Your task to perform on an android device: turn off priority inbox in the gmail app Image 0: 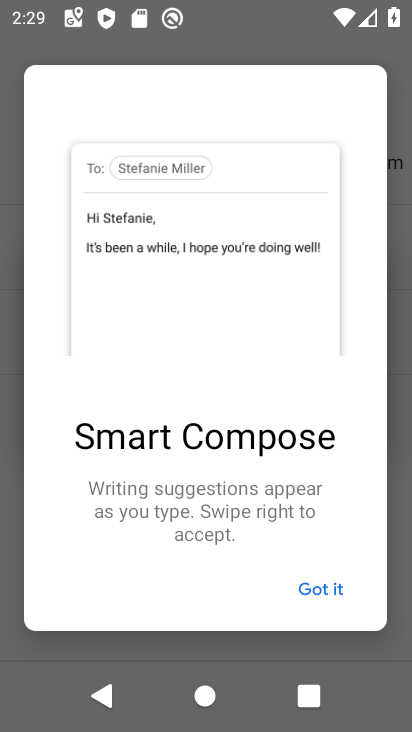
Step 0: press home button
Your task to perform on an android device: turn off priority inbox in the gmail app Image 1: 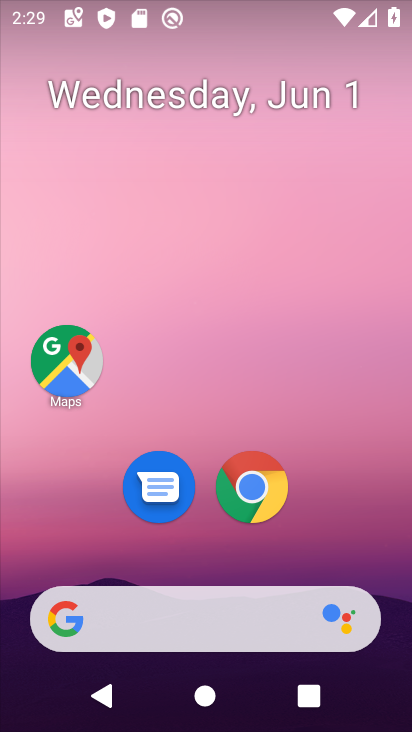
Step 1: drag from (381, 508) to (367, 254)
Your task to perform on an android device: turn off priority inbox in the gmail app Image 2: 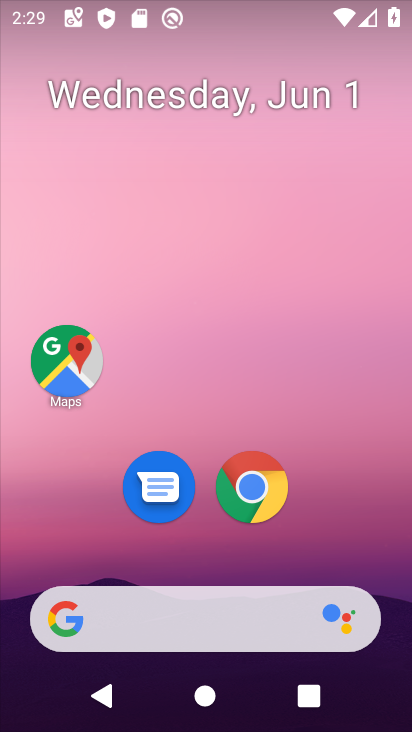
Step 2: drag from (377, 546) to (365, 222)
Your task to perform on an android device: turn off priority inbox in the gmail app Image 3: 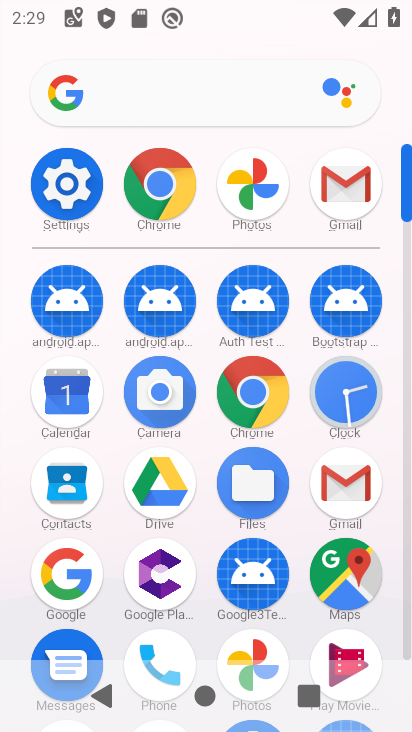
Step 3: click (349, 480)
Your task to perform on an android device: turn off priority inbox in the gmail app Image 4: 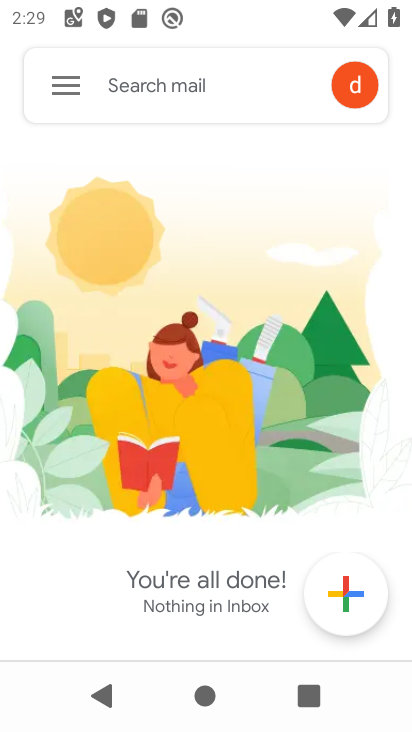
Step 4: click (70, 93)
Your task to perform on an android device: turn off priority inbox in the gmail app Image 5: 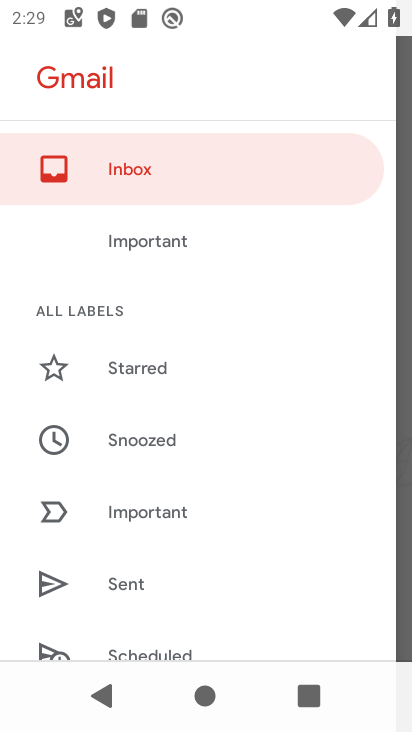
Step 5: drag from (331, 479) to (338, 406)
Your task to perform on an android device: turn off priority inbox in the gmail app Image 6: 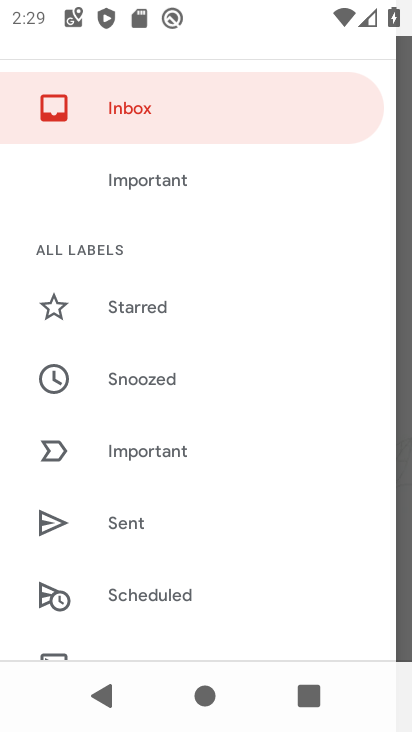
Step 6: drag from (324, 494) to (328, 425)
Your task to perform on an android device: turn off priority inbox in the gmail app Image 7: 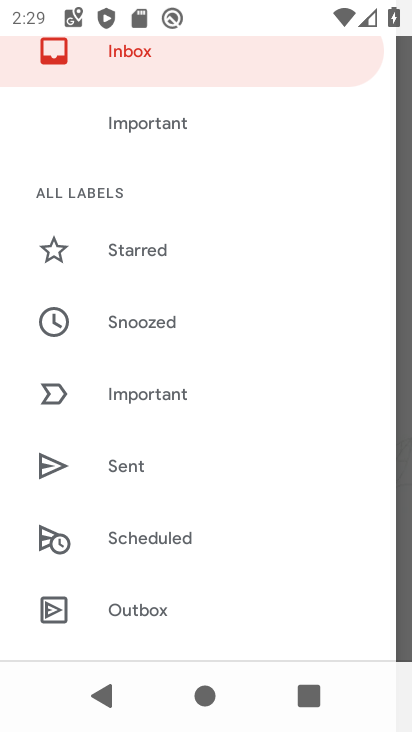
Step 7: drag from (314, 504) to (316, 429)
Your task to perform on an android device: turn off priority inbox in the gmail app Image 8: 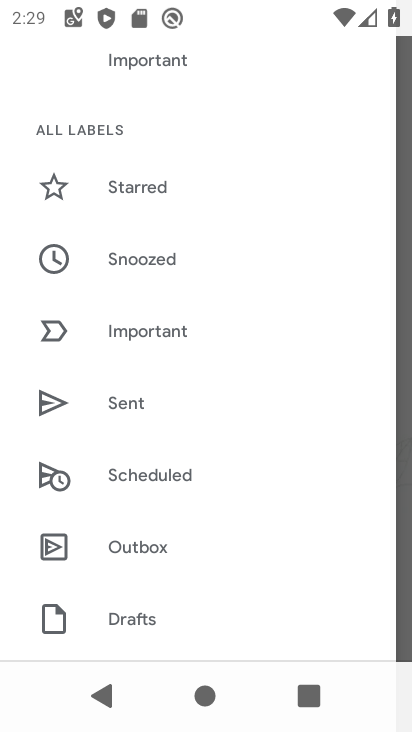
Step 8: drag from (326, 520) to (330, 437)
Your task to perform on an android device: turn off priority inbox in the gmail app Image 9: 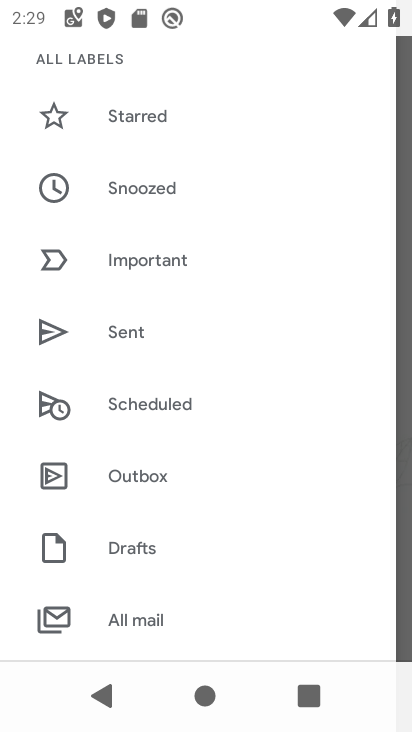
Step 9: drag from (329, 533) to (333, 452)
Your task to perform on an android device: turn off priority inbox in the gmail app Image 10: 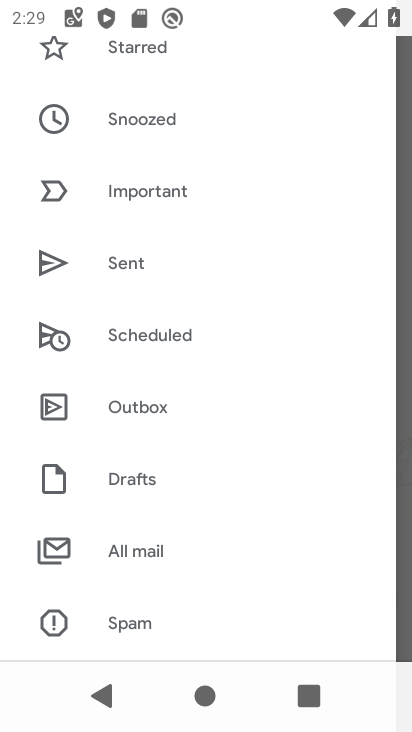
Step 10: drag from (320, 546) to (314, 465)
Your task to perform on an android device: turn off priority inbox in the gmail app Image 11: 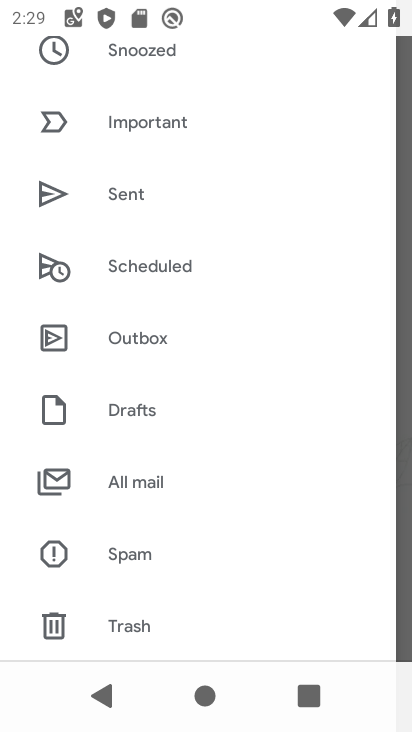
Step 11: drag from (312, 545) to (322, 419)
Your task to perform on an android device: turn off priority inbox in the gmail app Image 12: 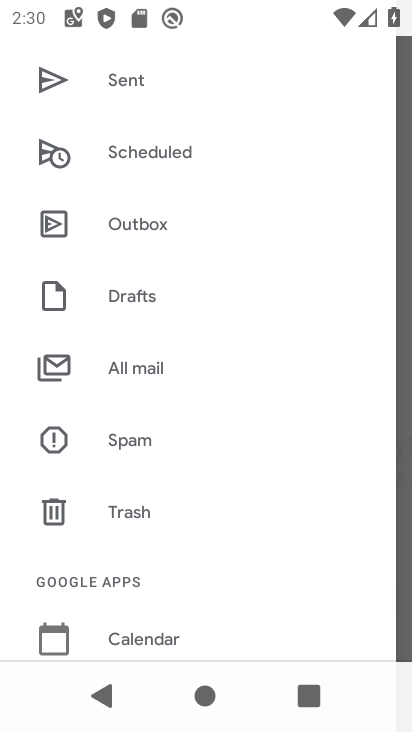
Step 12: drag from (323, 498) to (321, 401)
Your task to perform on an android device: turn off priority inbox in the gmail app Image 13: 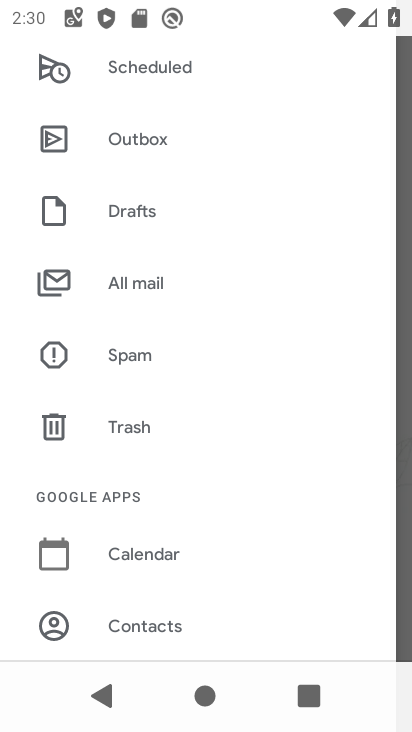
Step 13: drag from (306, 535) to (313, 432)
Your task to perform on an android device: turn off priority inbox in the gmail app Image 14: 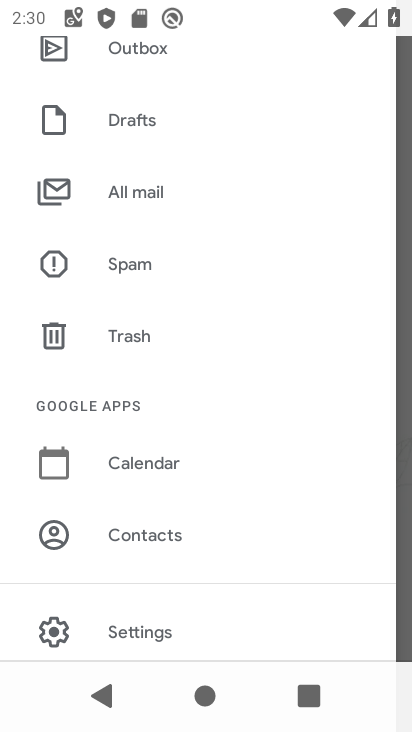
Step 14: drag from (307, 592) to (301, 450)
Your task to perform on an android device: turn off priority inbox in the gmail app Image 15: 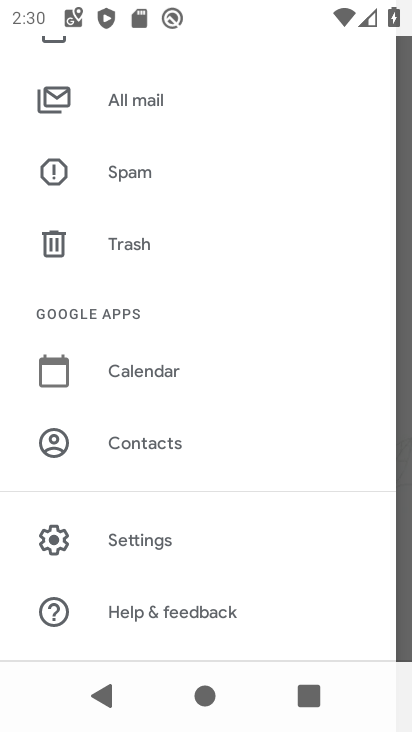
Step 15: click (250, 533)
Your task to perform on an android device: turn off priority inbox in the gmail app Image 16: 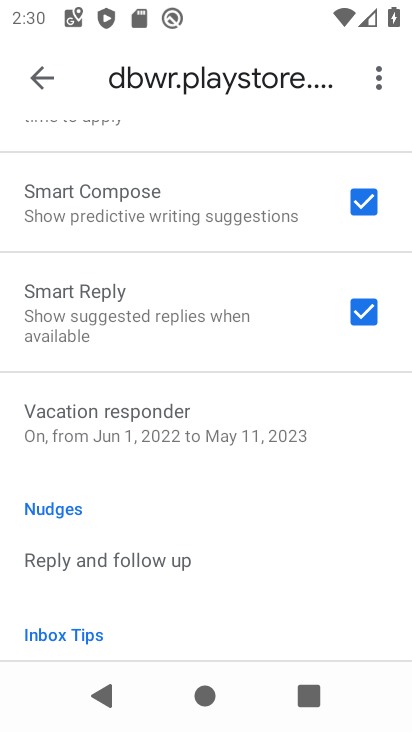
Step 16: drag from (250, 533) to (260, 412)
Your task to perform on an android device: turn off priority inbox in the gmail app Image 17: 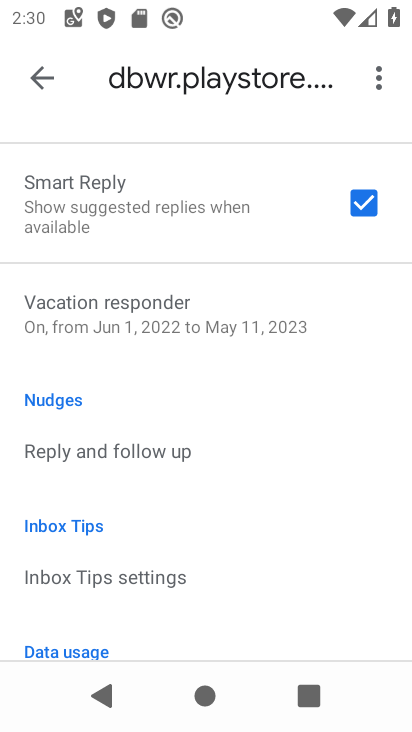
Step 17: drag from (276, 366) to (284, 457)
Your task to perform on an android device: turn off priority inbox in the gmail app Image 18: 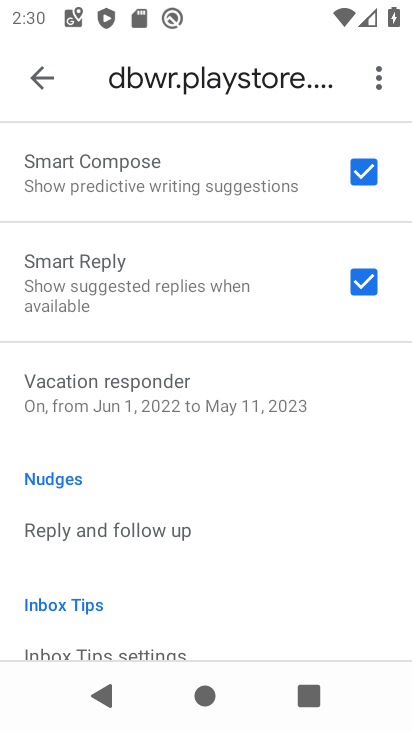
Step 18: drag from (297, 290) to (313, 452)
Your task to perform on an android device: turn off priority inbox in the gmail app Image 19: 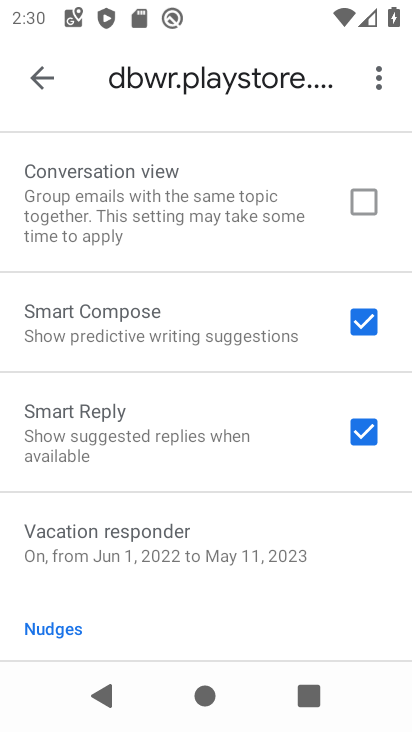
Step 19: drag from (293, 284) to (290, 448)
Your task to perform on an android device: turn off priority inbox in the gmail app Image 20: 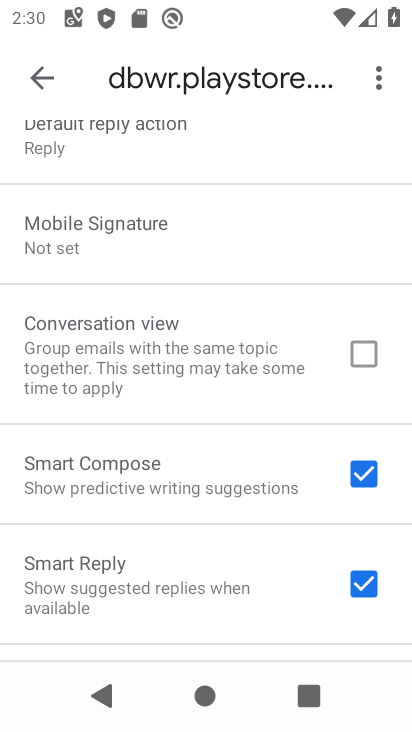
Step 20: drag from (281, 235) to (283, 385)
Your task to perform on an android device: turn off priority inbox in the gmail app Image 21: 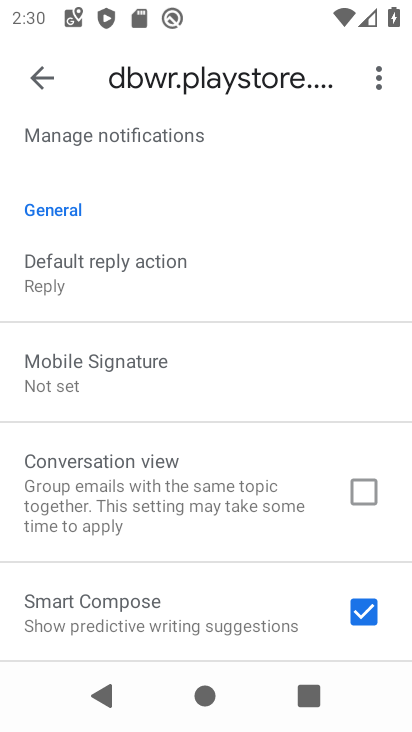
Step 21: drag from (266, 251) to (265, 384)
Your task to perform on an android device: turn off priority inbox in the gmail app Image 22: 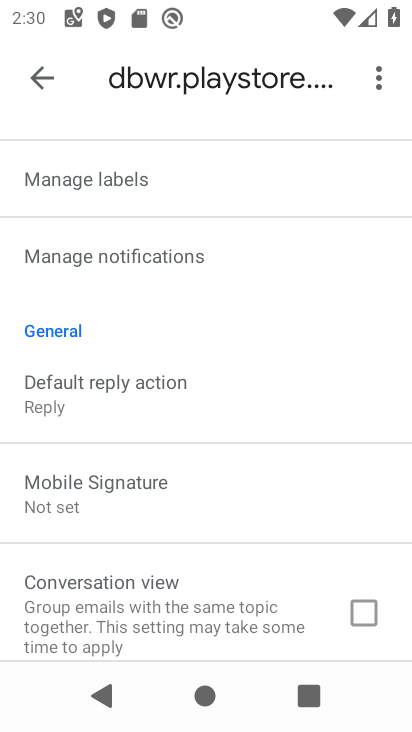
Step 22: drag from (264, 236) to (265, 357)
Your task to perform on an android device: turn off priority inbox in the gmail app Image 23: 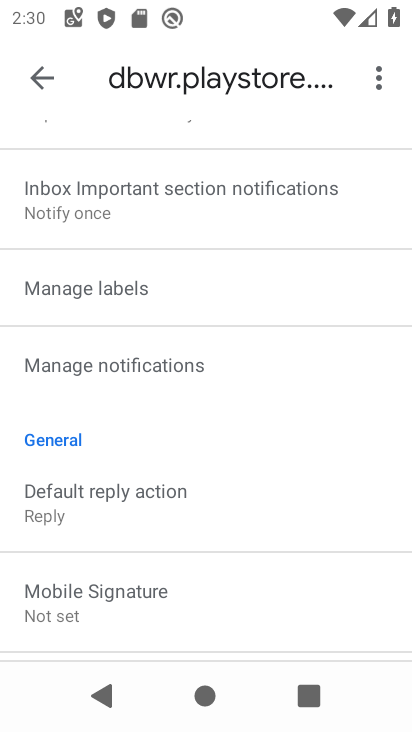
Step 23: drag from (269, 249) to (264, 375)
Your task to perform on an android device: turn off priority inbox in the gmail app Image 24: 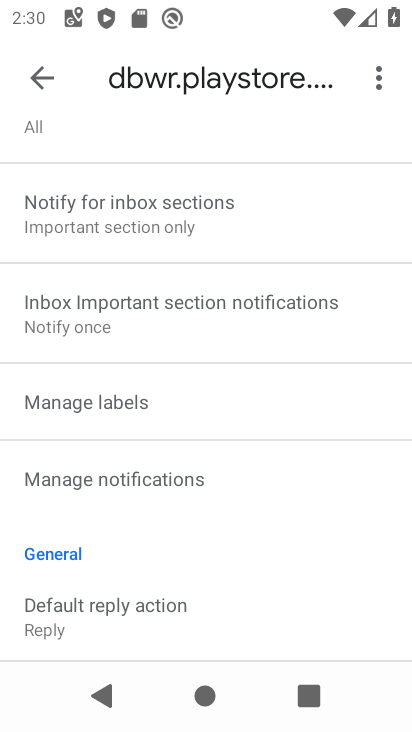
Step 24: drag from (274, 199) to (273, 362)
Your task to perform on an android device: turn off priority inbox in the gmail app Image 25: 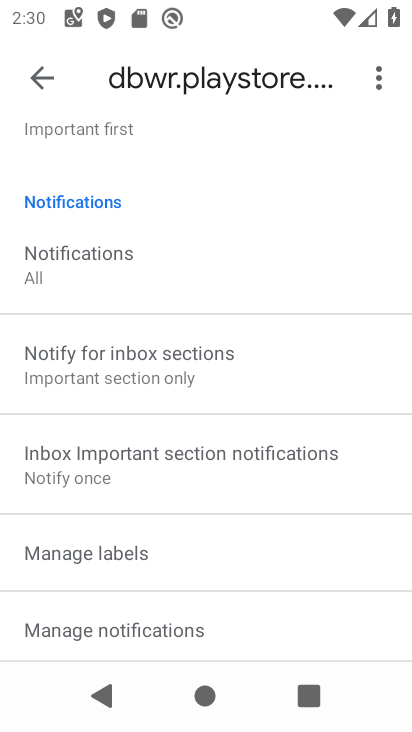
Step 25: drag from (202, 194) to (221, 334)
Your task to perform on an android device: turn off priority inbox in the gmail app Image 26: 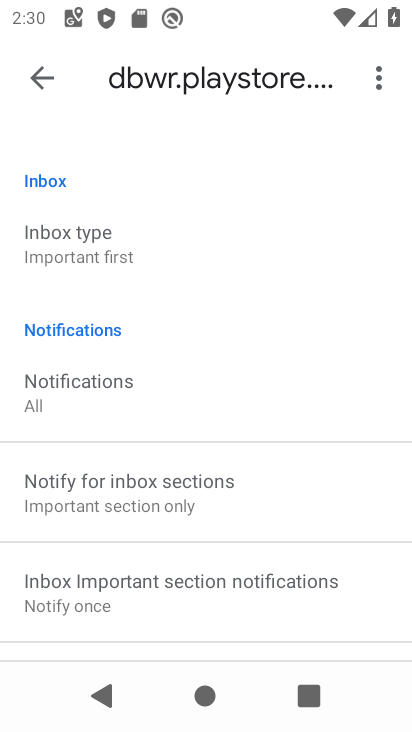
Step 26: click (119, 255)
Your task to perform on an android device: turn off priority inbox in the gmail app Image 27: 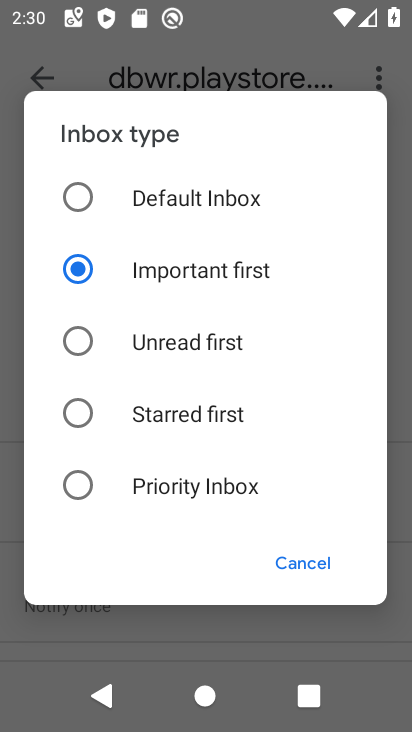
Step 27: task complete